Your task to perform on an android device: Open battery settings Image 0: 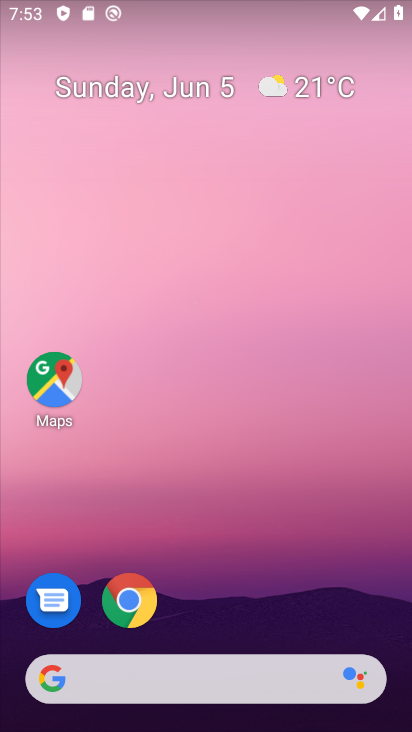
Step 0: drag from (244, 611) to (239, 0)
Your task to perform on an android device: Open battery settings Image 1: 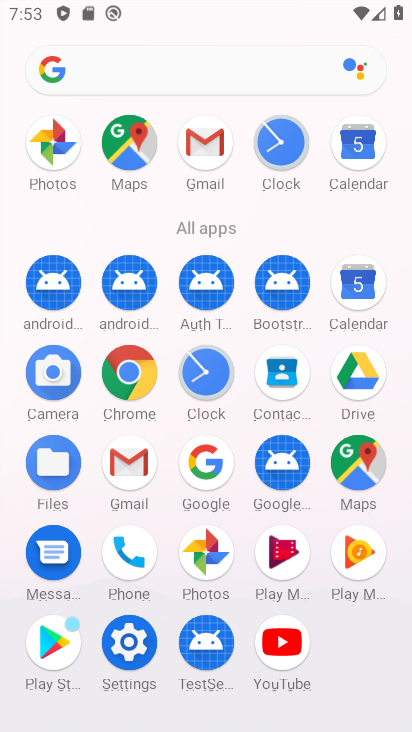
Step 1: click (136, 639)
Your task to perform on an android device: Open battery settings Image 2: 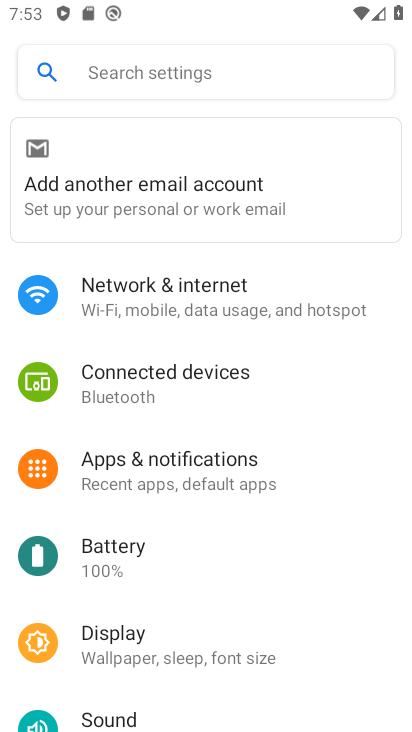
Step 2: click (137, 560)
Your task to perform on an android device: Open battery settings Image 3: 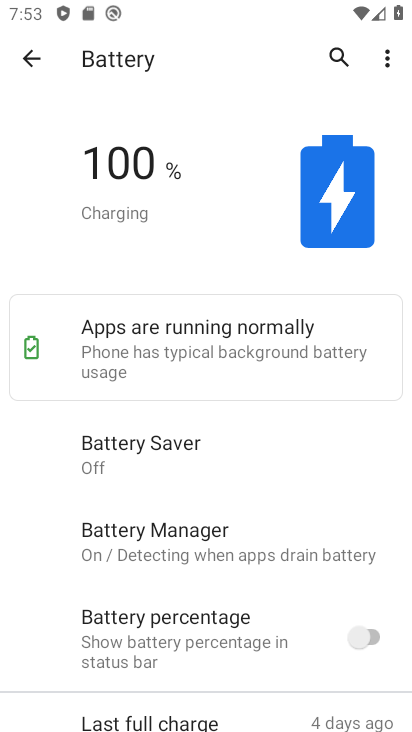
Step 3: task complete